Your task to perform on an android device: turn off javascript in the chrome app Image 0: 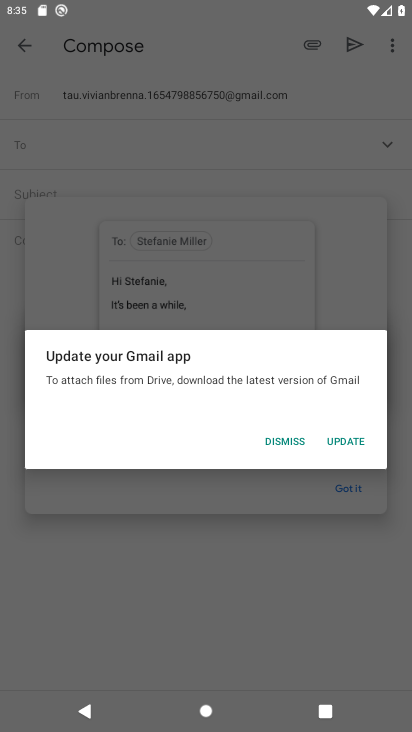
Step 0: press home button
Your task to perform on an android device: turn off javascript in the chrome app Image 1: 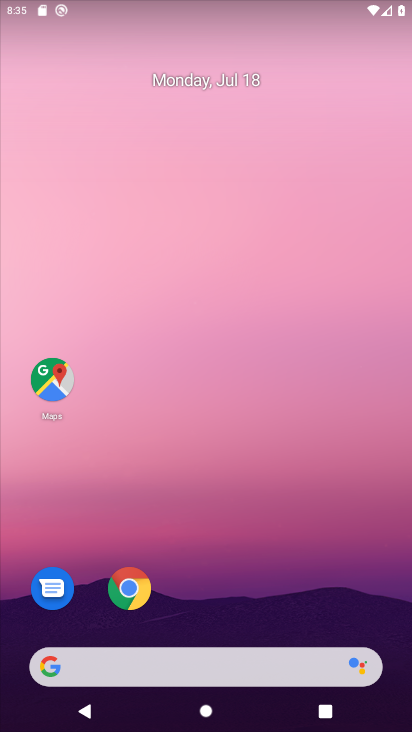
Step 1: drag from (194, 646) to (248, 154)
Your task to perform on an android device: turn off javascript in the chrome app Image 2: 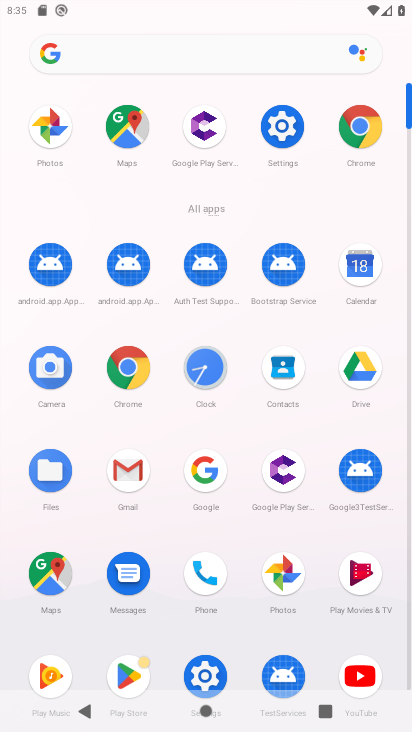
Step 2: click (137, 368)
Your task to perform on an android device: turn off javascript in the chrome app Image 3: 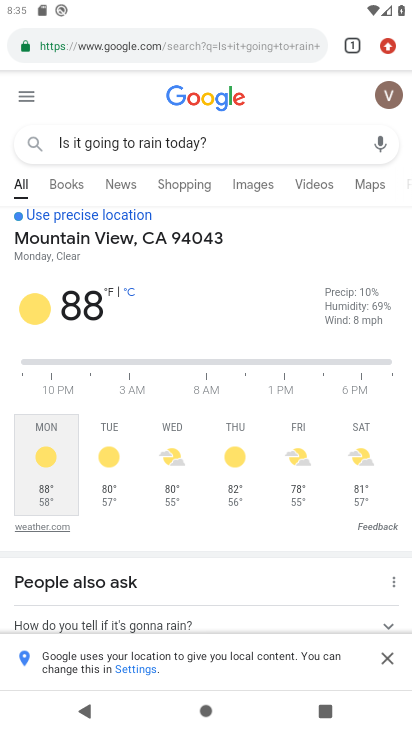
Step 3: drag from (384, 41) to (266, 550)
Your task to perform on an android device: turn off javascript in the chrome app Image 4: 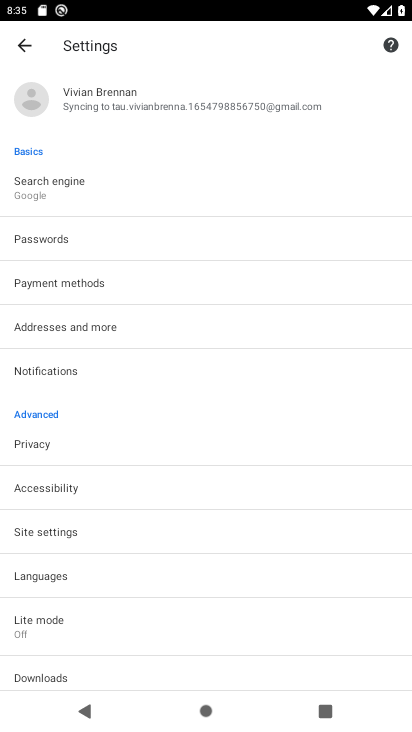
Step 4: click (142, 514)
Your task to perform on an android device: turn off javascript in the chrome app Image 5: 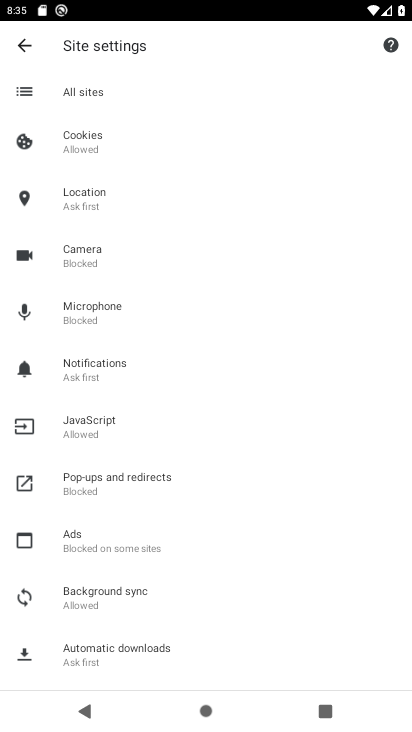
Step 5: click (118, 416)
Your task to perform on an android device: turn off javascript in the chrome app Image 6: 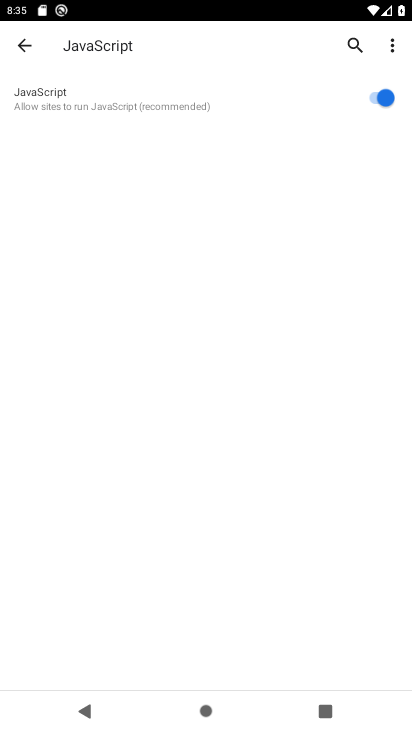
Step 6: click (363, 91)
Your task to perform on an android device: turn off javascript in the chrome app Image 7: 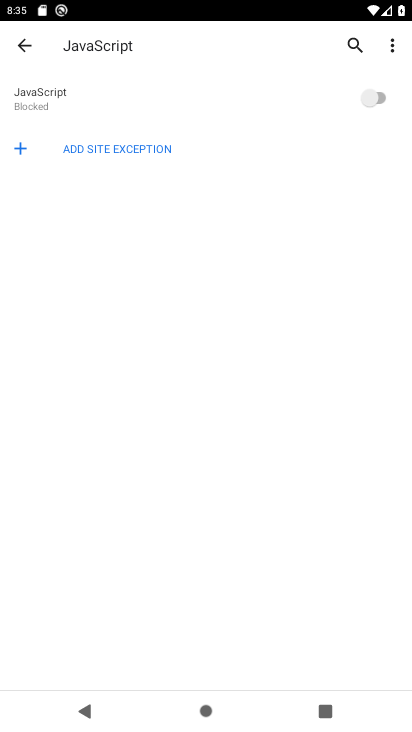
Step 7: task complete